Your task to perform on an android device: Turn off the flashlight Image 0: 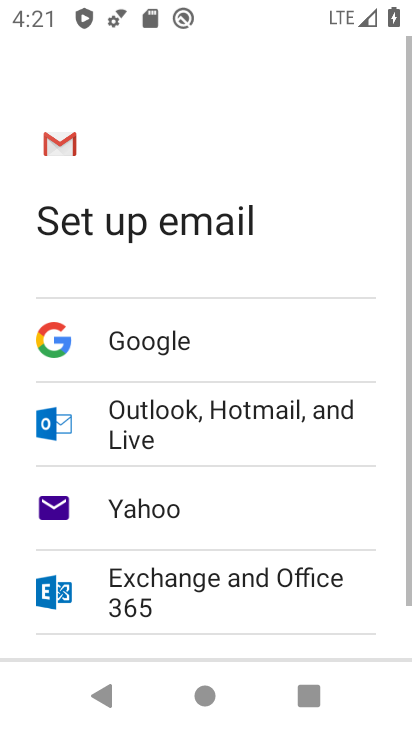
Step 0: drag from (340, 12) to (268, 563)
Your task to perform on an android device: Turn off the flashlight Image 1: 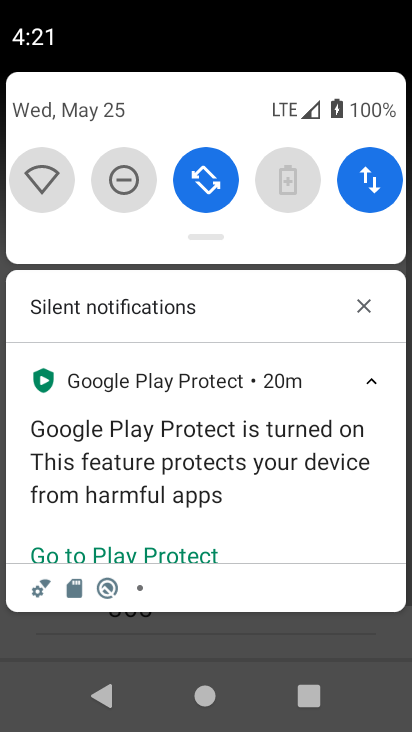
Step 1: drag from (234, 238) to (199, 642)
Your task to perform on an android device: Turn off the flashlight Image 2: 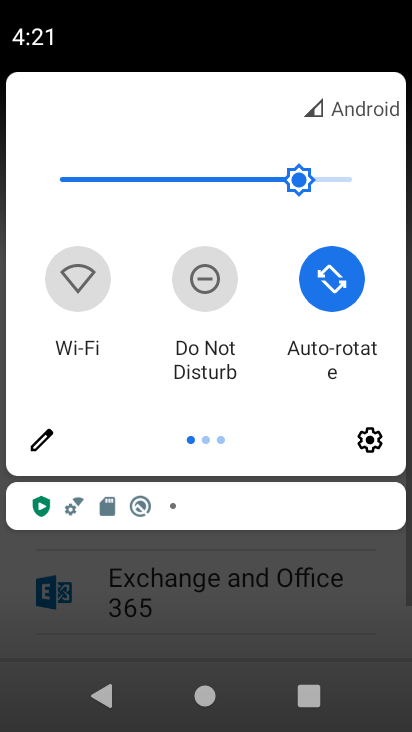
Step 2: click (49, 436)
Your task to perform on an android device: Turn off the flashlight Image 3: 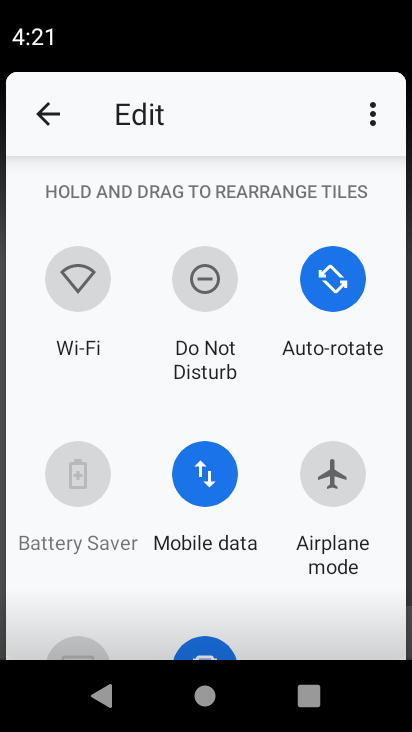
Step 3: task complete